Your task to perform on an android device: read, delete, or share a saved page in the chrome app Image 0: 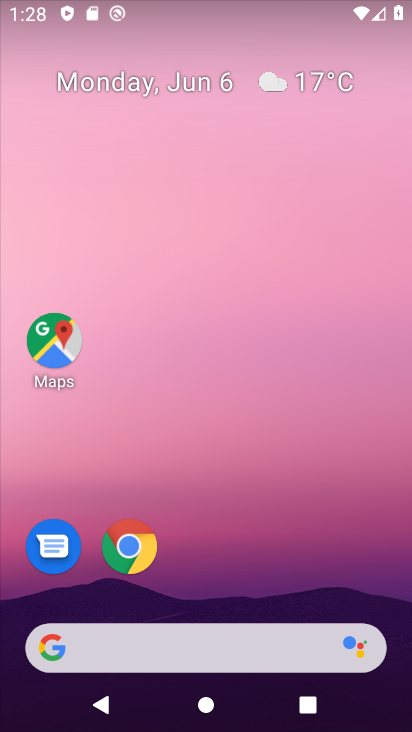
Step 0: click (120, 553)
Your task to perform on an android device: read, delete, or share a saved page in the chrome app Image 1: 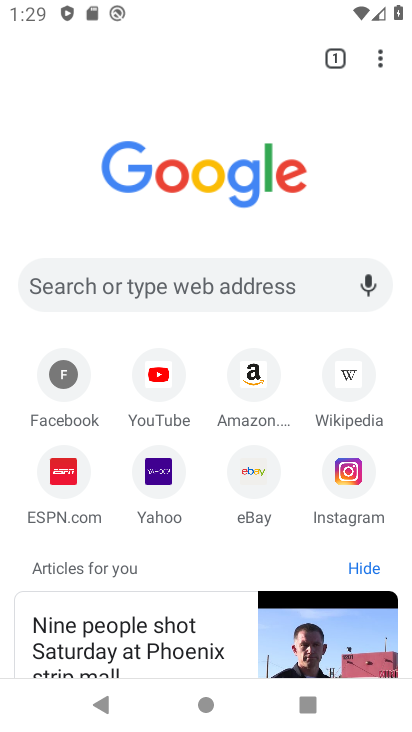
Step 1: click (382, 50)
Your task to perform on an android device: read, delete, or share a saved page in the chrome app Image 2: 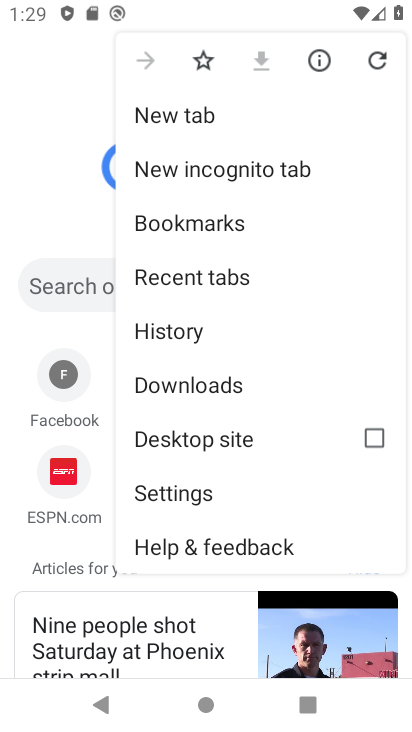
Step 2: click (155, 236)
Your task to perform on an android device: read, delete, or share a saved page in the chrome app Image 3: 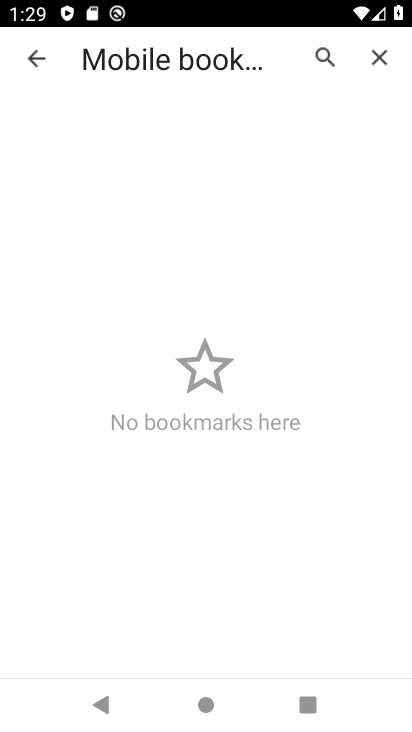
Step 3: task complete